Your task to perform on an android device: empty trash in google photos Image 0: 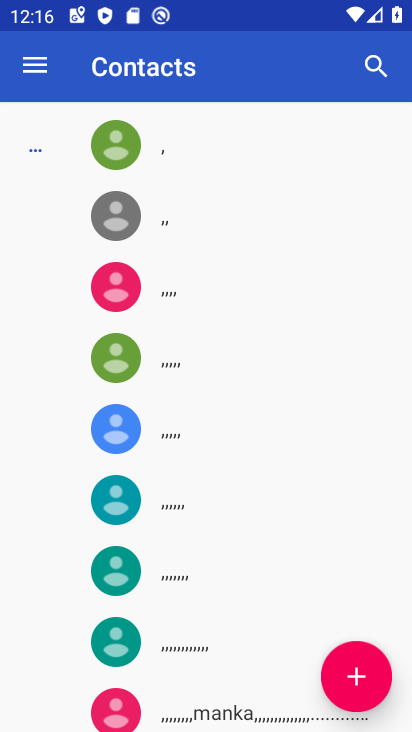
Step 0: press home button
Your task to perform on an android device: empty trash in google photos Image 1: 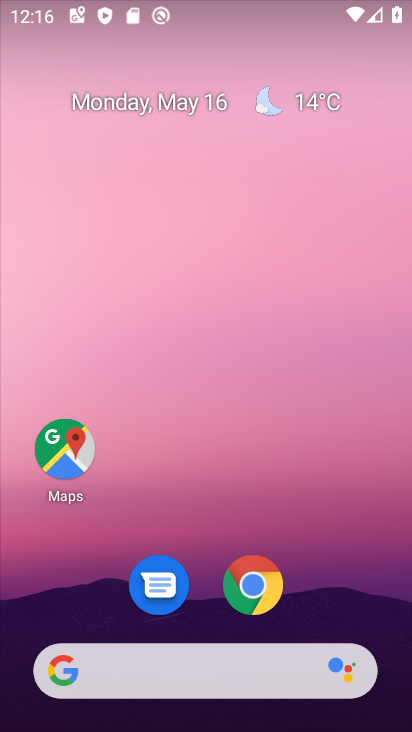
Step 1: drag from (251, 476) to (275, 0)
Your task to perform on an android device: empty trash in google photos Image 2: 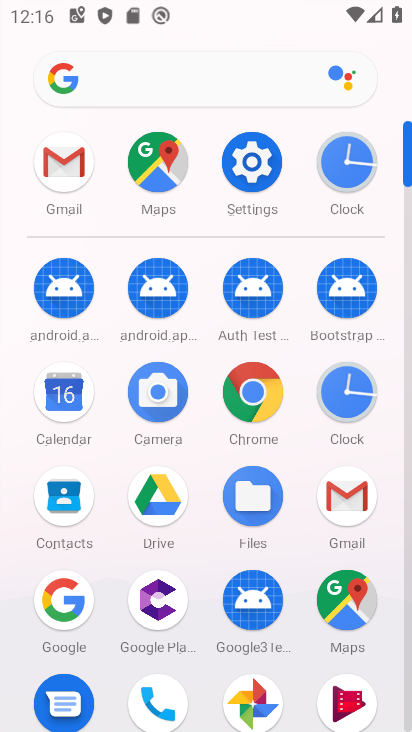
Step 2: click (253, 689)
Your task to perform on an android device: empty trash in google photos Image 3: 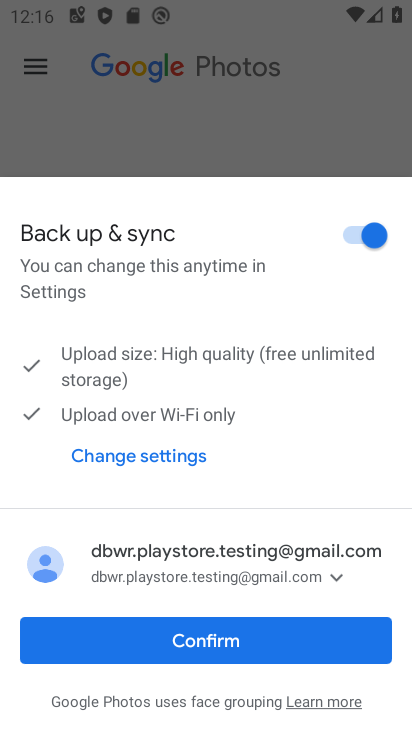
Step 3: click (37, 63)
Your task to perform on an android device: empty trash in google photos Image 4: 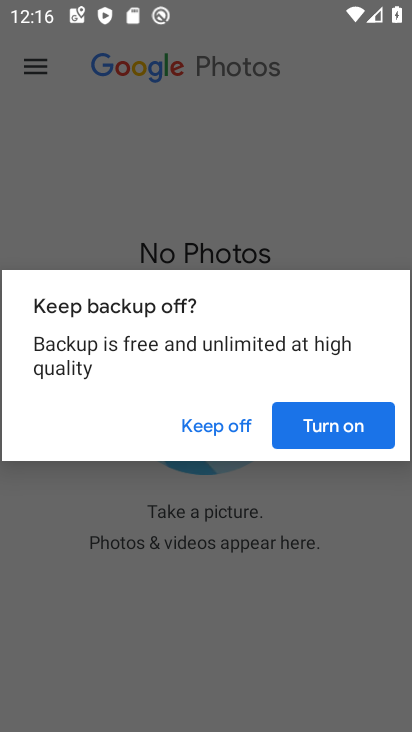
Step 4: click (320, 430)
Your task to perform on an android device: empty trash in google photos Image 5: 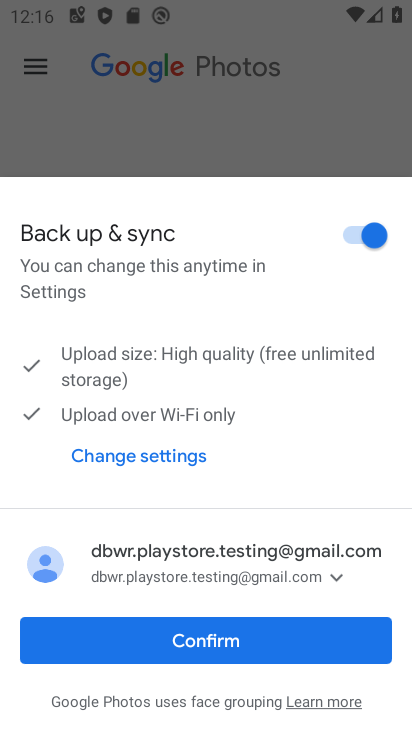
Step 5: click (304, 635)
Your task to perform on an android device: empty trash in google photos Image 6: 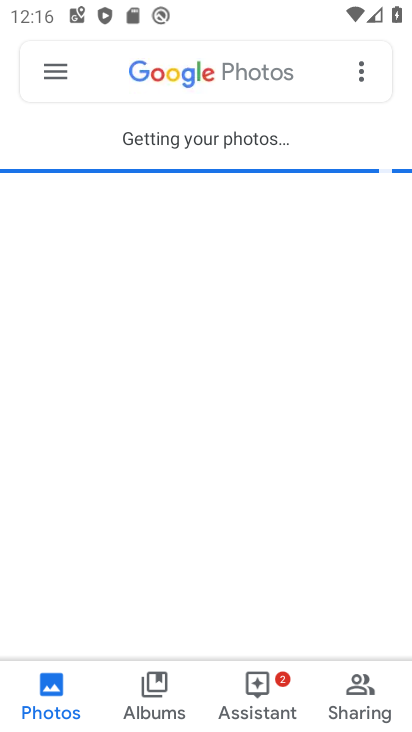
Step 6: click (44, 65)
Your task to perform on an android device: empty trash in google photos Image 7: 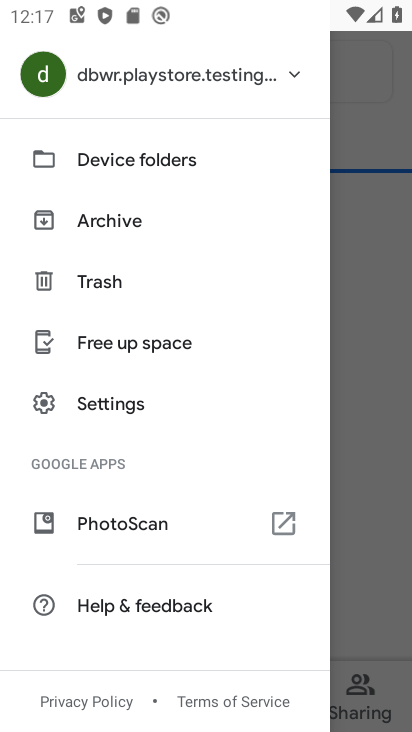
Step 7: click (142, 282)
Your task to perform on an android device: empty trash in google photos Image 8: 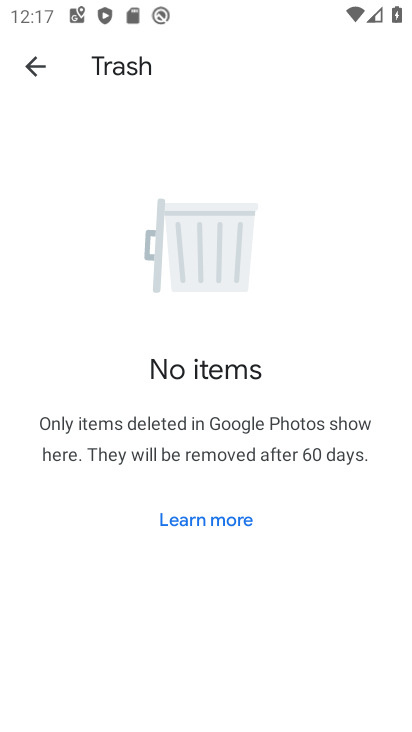
Step 8: task complete